Your task to perform on an android device: search for starred emails in the gmail app Image 0: 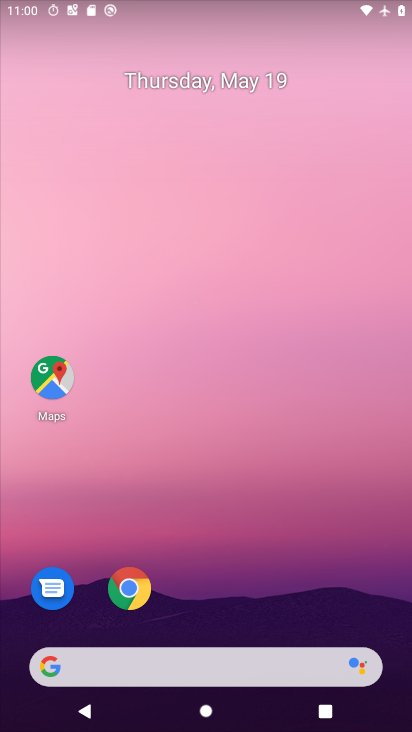
Step 0: press home button
Your task to perform on an android device: search for starred emails in the gmail app Image 1: 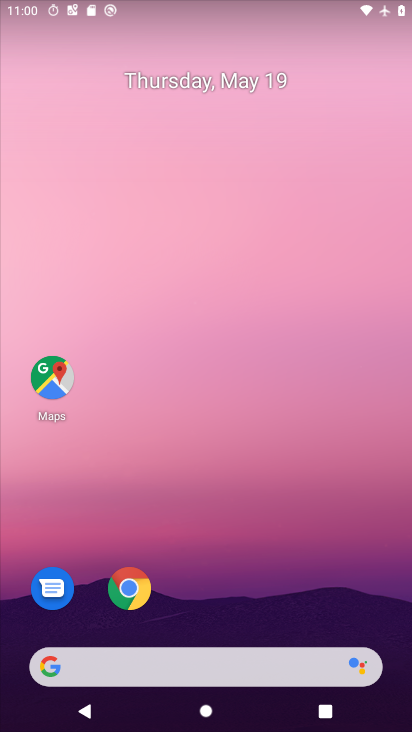
Step 1: drag from (161, 665) to (334, 32)
Your task to perform on an android device: search for starred emails in the gmail app Image 2: 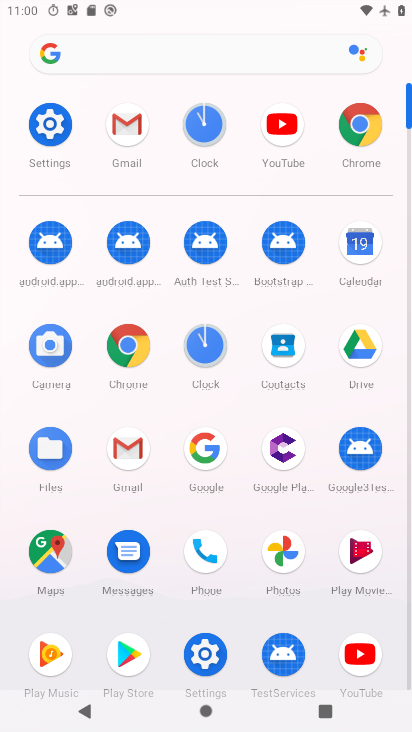
Step 2: click (130, 135)
Your task to perform on an android device: search for starred emails in the gmail app Image 3: 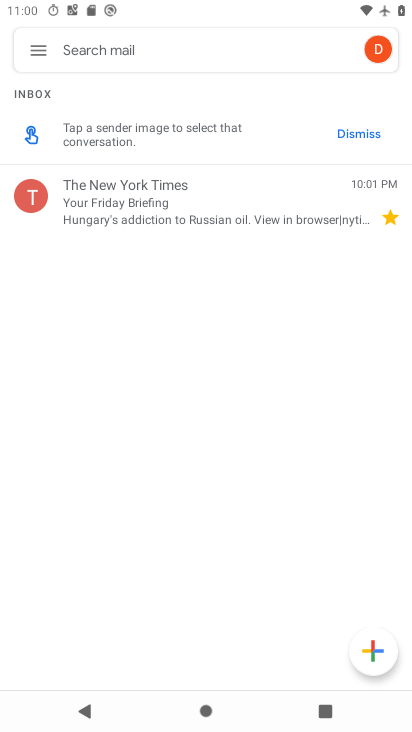
Step 3: click (37, 55)
Your task to perform on an android device: search for starred emails in the gmail app Image 4: 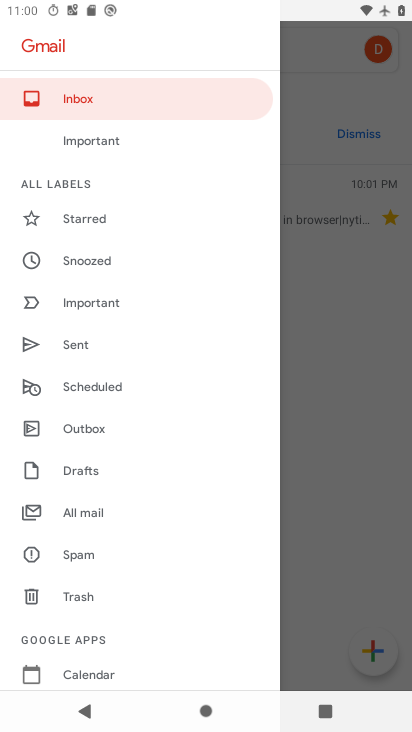
Step 4: click (91, 215)
Your task to perform on an android device: search for starred emails in the gmail app Image 5: 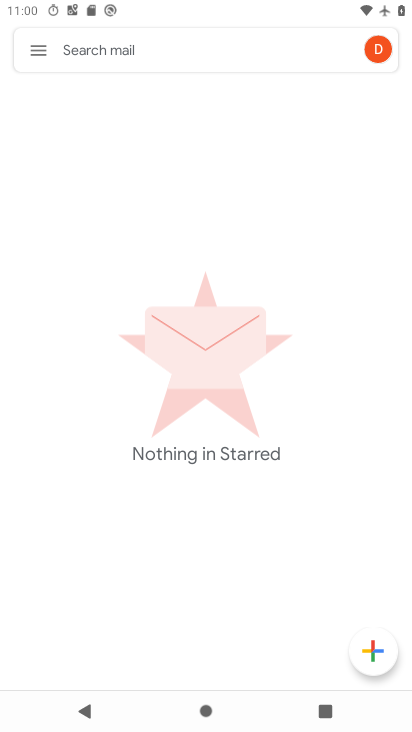
Step 5: task complete